Your task to perform on an android device: Open settings on Google Maps Image 0: 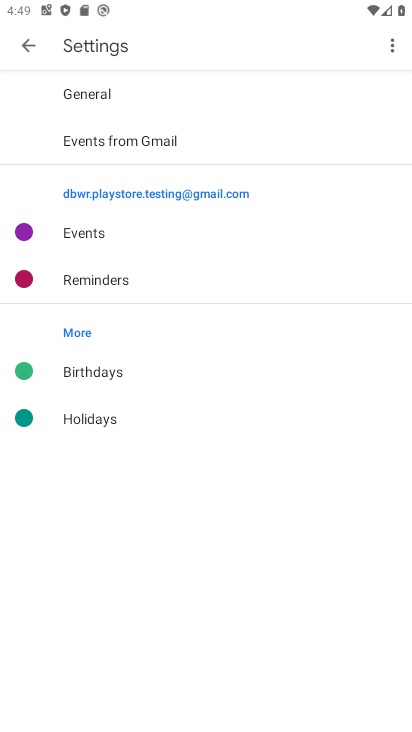
Step 0: press back button
Your task to perform on an android device: Open settings on Google Maps Image 1: 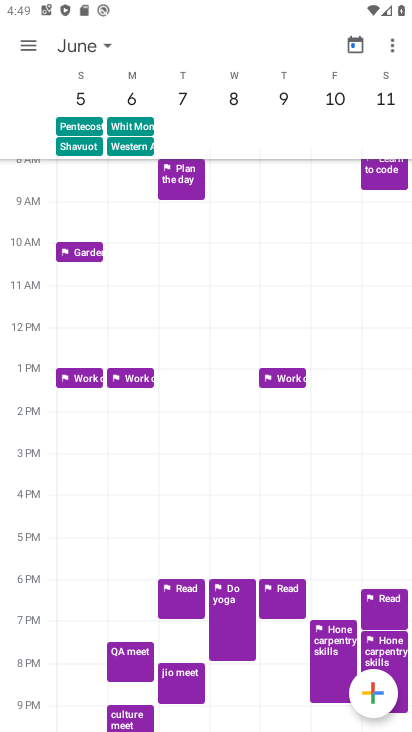
Step 1: press back button
Your task to perform on an android device: Open settings on Google Maps Image 2: 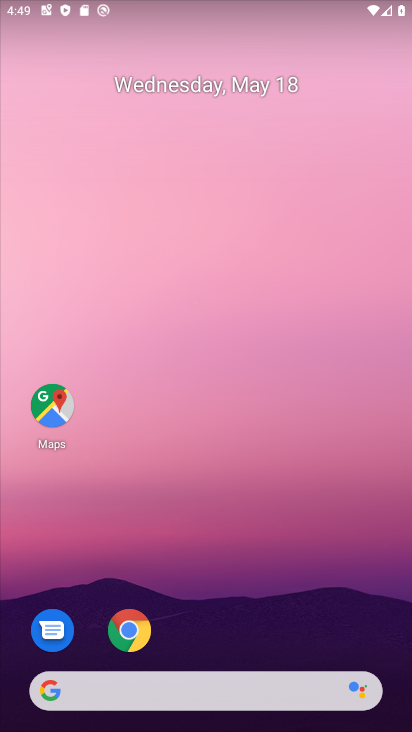
Step 2: click (51, 408)
Your task to perform on an android device: Open settings on Google Maps Image 3: 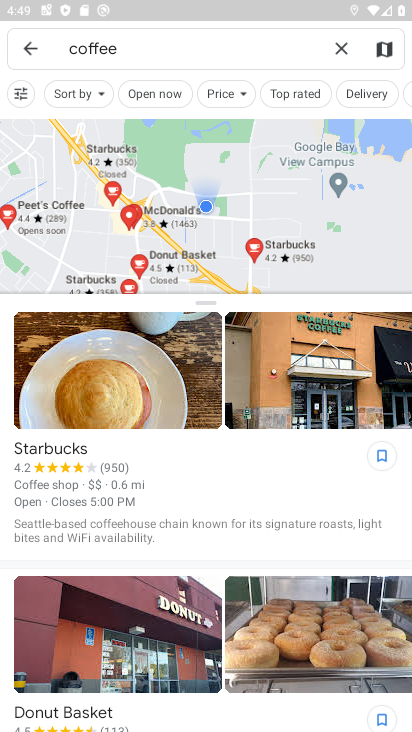
Step 3: click (340, 49)
Your task to perform on an android device: Open settings on Google Maps Image 4: 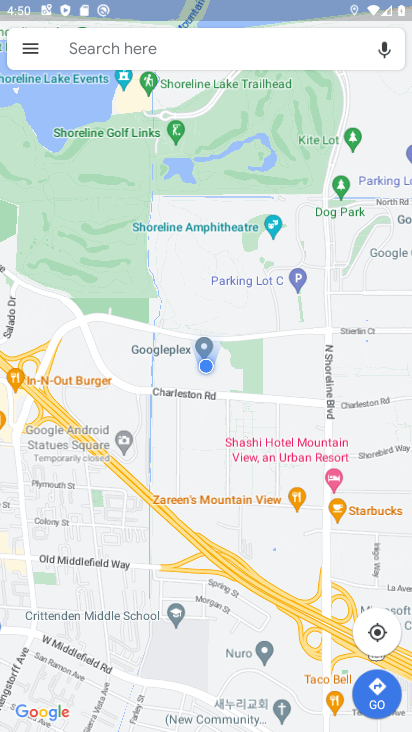
Step 4: click (31, 47)
Your task to perform on an android device: Open settings on Google Maps Image 5: 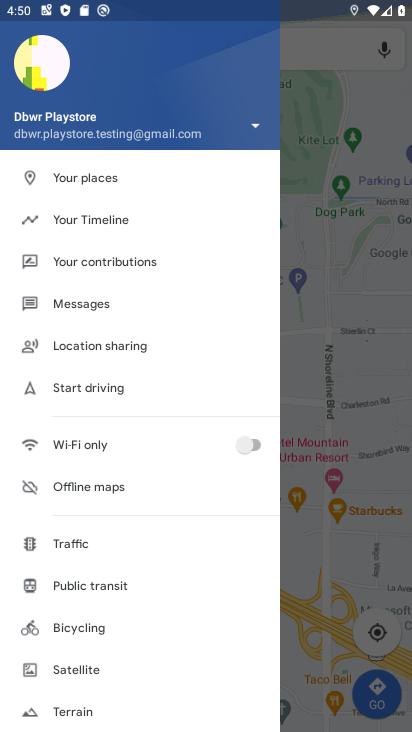
Step 5: drag from (97, 611) to (113, 505)
Your task to perform on an android device: Open settings on Google Maps Image 6: 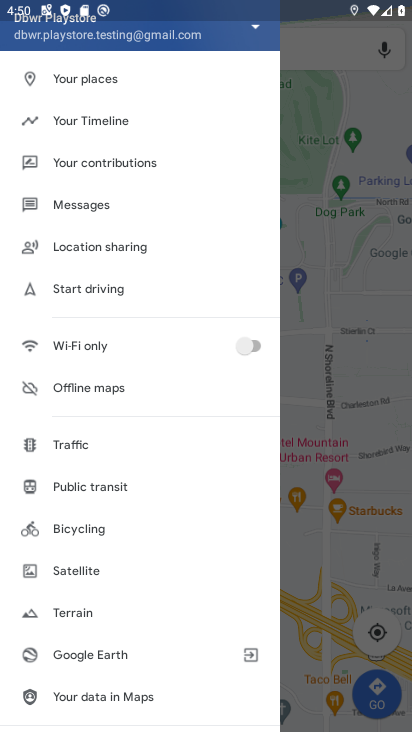
Step 6: drag from (85, 626) to (99, 540)
Your task to perform on an android device: Open settings on Google Maps Image 7: 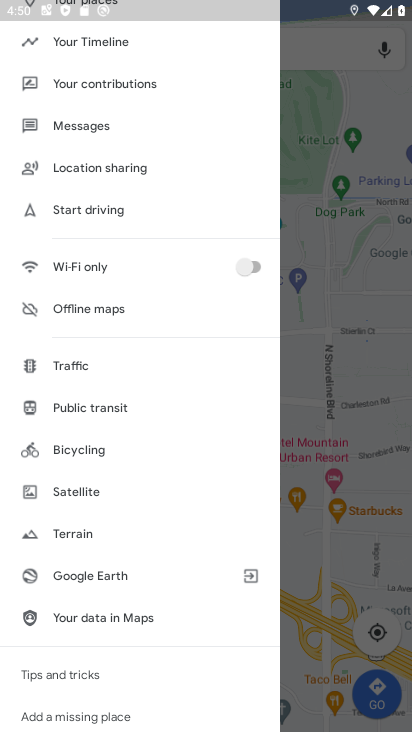
Step 7: drag from (91, 631) to (112, 511)
Your task to perform on an android device: Open settings on Google Maps Image 8: 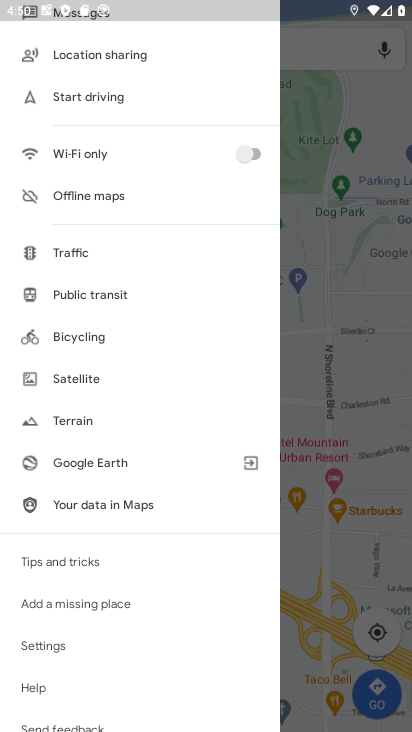
Step 8: click (50, 647)
Your task to perform on an android device: Open settings on Google Maps Image 9: 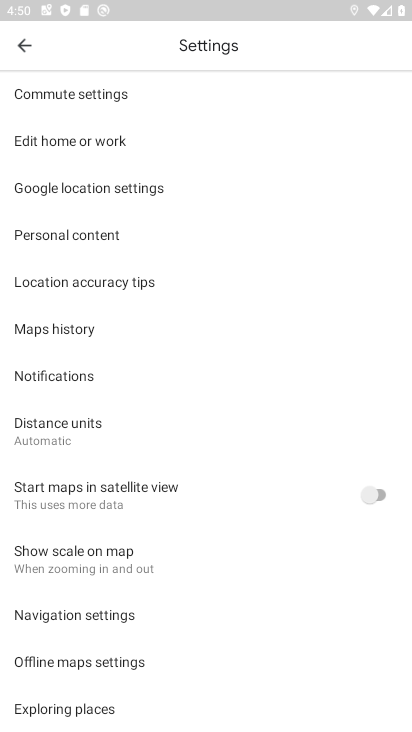
Step 9: task complete